Your task to perform on an android device: toggle sleep mode Image 0: 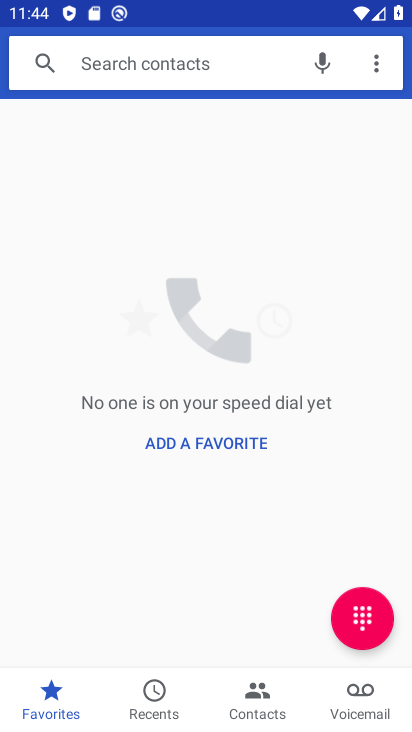
Step 0: press home button
Your task to perform on an android device: toggle sleep mode Image 1: 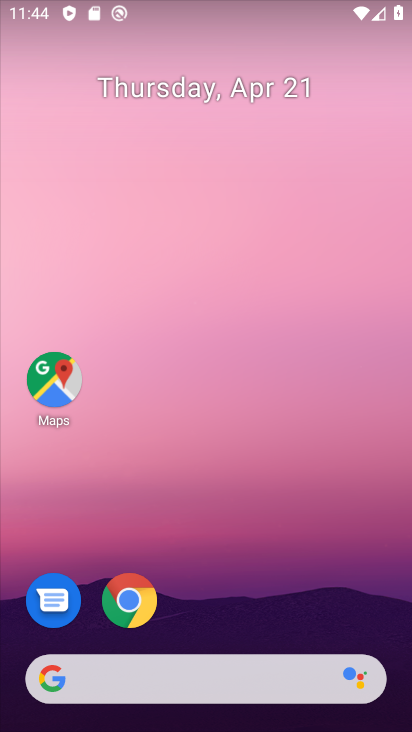
Step 1: drag from (227, 635) to (228, 5)
Your task to perform on an android device: toggle sleep mode Image 2: 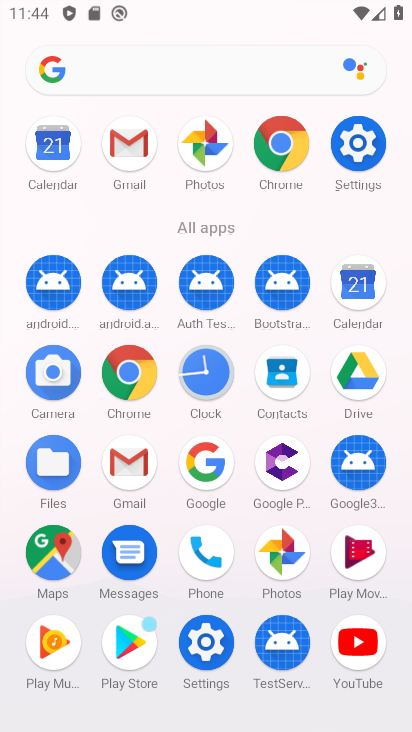
Step 2: click (370, 162)
Your task to perform on an android device: toggle sleep mode Image 3: 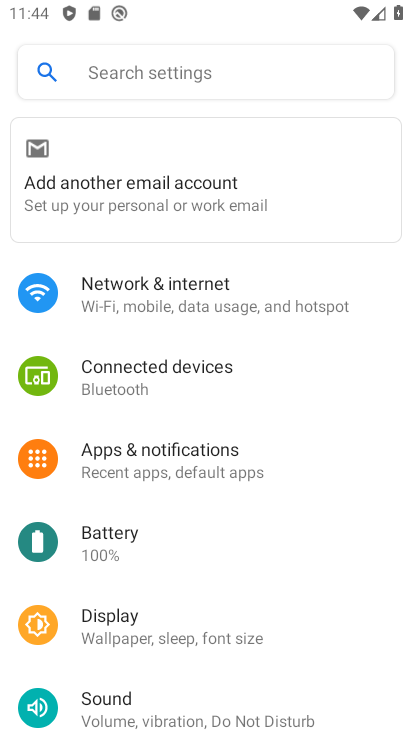
Step 3: click (180, 75)
Your task to perform on an android device: toggle sleep mode Image 4: 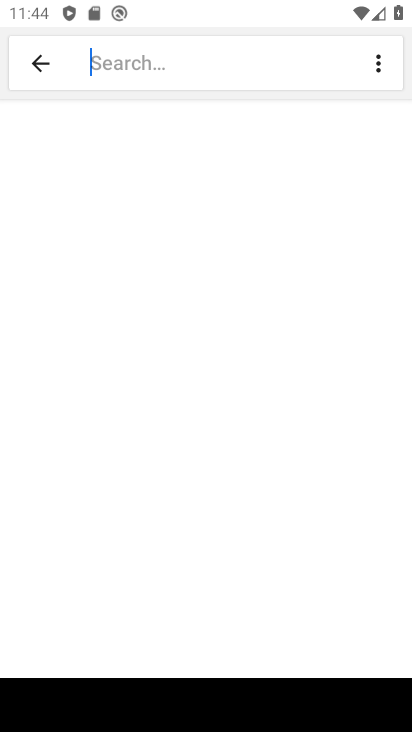
Step 4: type "sleep mode"
Your task to perform on an android device: toggle sleep mode Image 5: 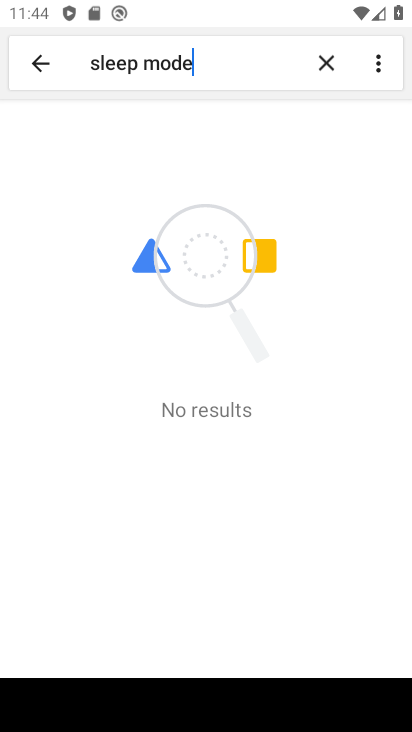
Step 5: task complete